Your task to perform on an android device: When is my next appointment? Image 0: 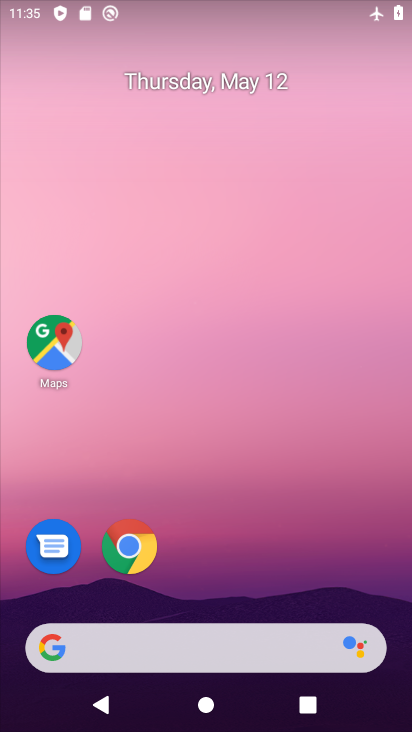
Step 0: drag from (238, 722) to (241, 185)
Your task to perform on an android device: When is my next appointment? Image 1: 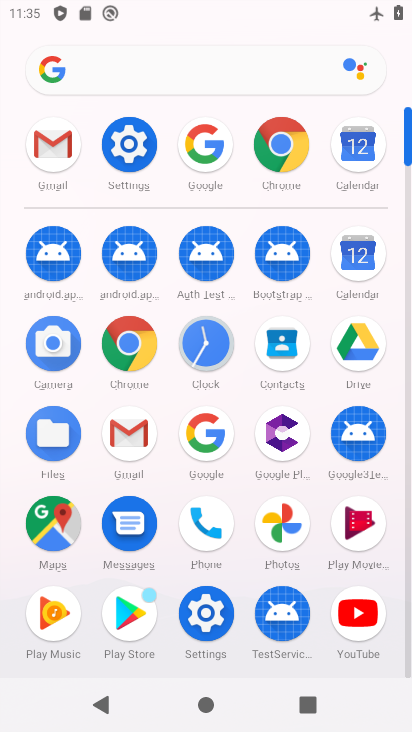
Step 1: click (362, 260)
Your task to perform on an android device: When is my next appointment? Image 2: 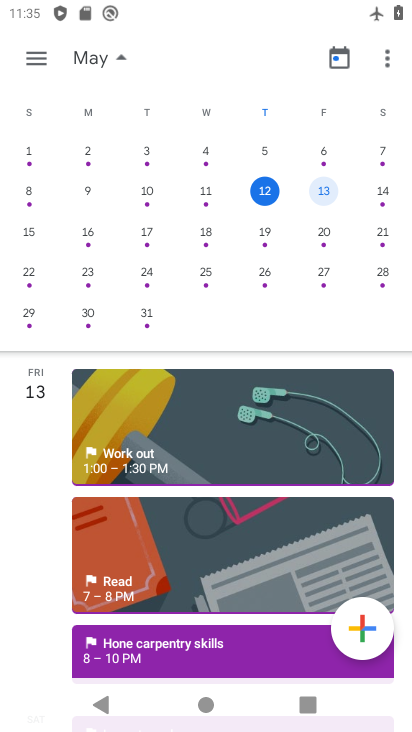
Step 2: click (323, 192)
Your task to perform on an android device: When is my next appointment? Image 3: 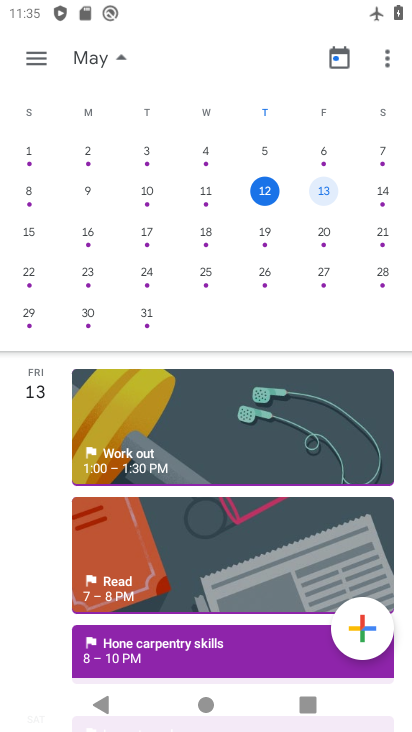
Step 3: task complete